Your task to perform on an android device: turn pop-ups on in chrome Image 0: 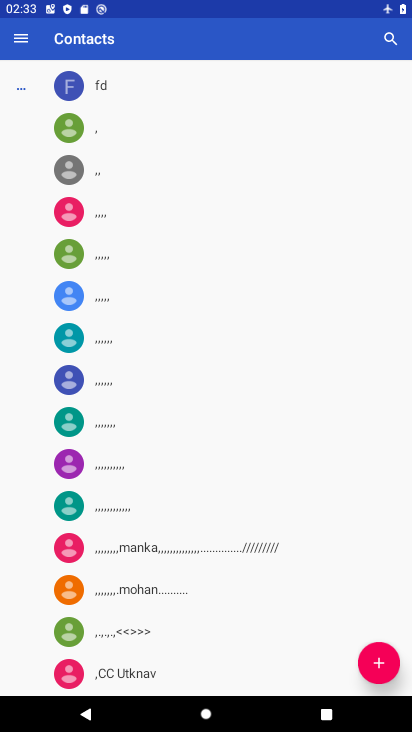
Step 0: drag from (233, 634) to (208, 95)
Your task to perform on an android device: turn pop-ups on in chrome Image 1: 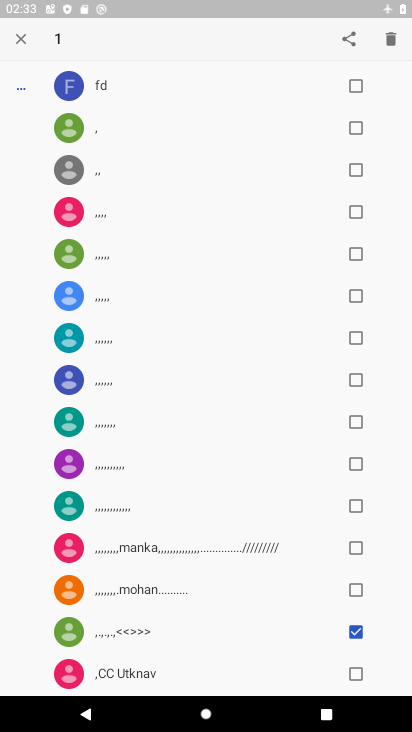
Step 1: press home button
Your task to perform on an android device: turn pop-ups on in chrome Image 2: 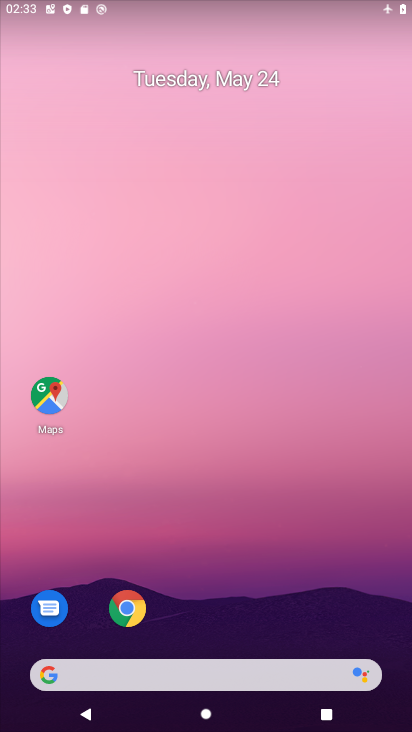
Step 2: drag from (264, 631) to (210, 231)
Your task to perform on an android device: turn pop-ups on in chrome Image 3: 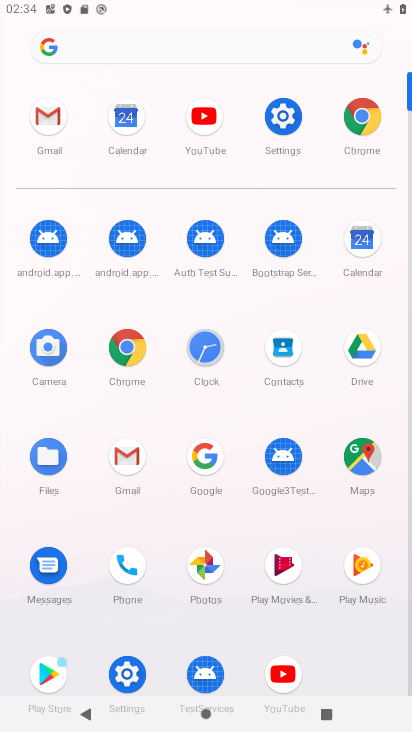
Step 3: click (354, 109)
Your task to perform on an android device: turn pop-ups on in chrome Image 4: 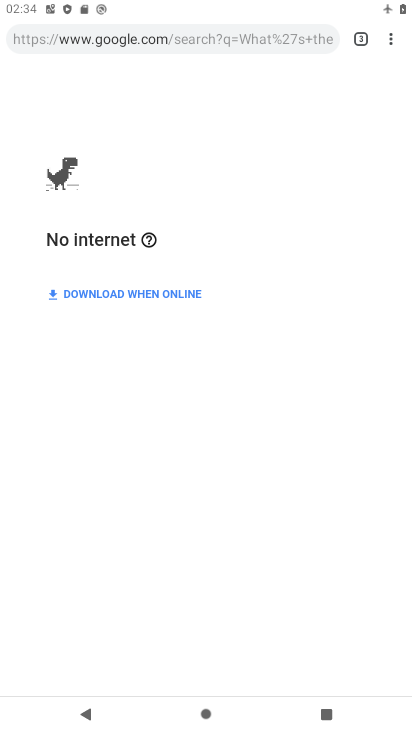
Step 4: click (388, 34)
Your task to perform on an android device: turn pop-ups on in chrome Image 5: 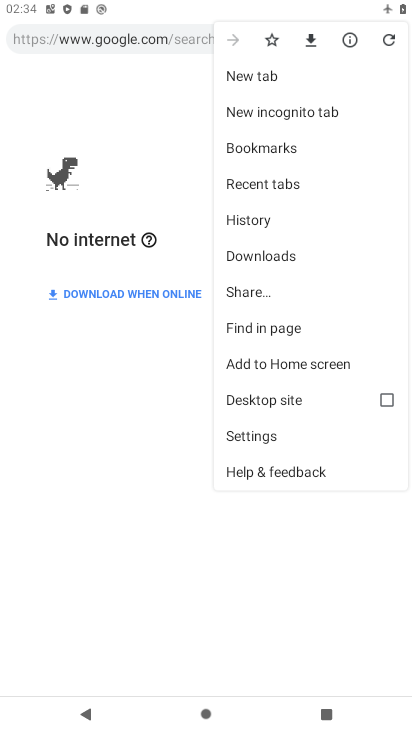
Step 5: click (296, 437)
Your task to perform on an android device: turn pop-ups on in chrome Image 6: 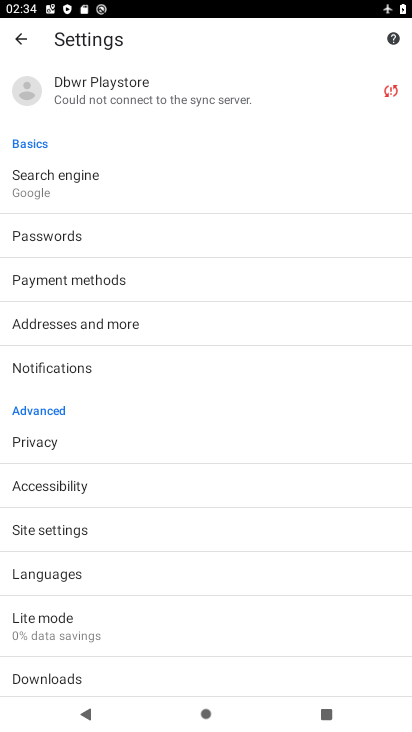
Step 6: click (148, 536)
Your task to perform on an android device: turn pop-ups on in chrome Image 7: 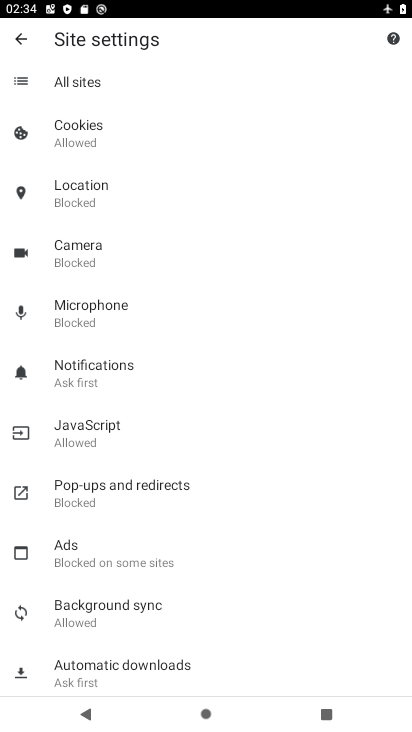
Step 7: click (145, 502)
Your task to perform on an android device: turn pop-ups on in chrome Image 8: 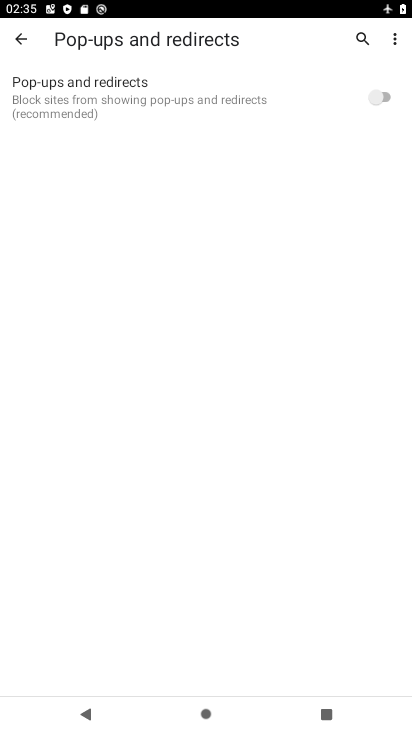
Step 8: click (386, 95)
Your task to perform on an android device: turn pop-ups on in chrome Image 9: 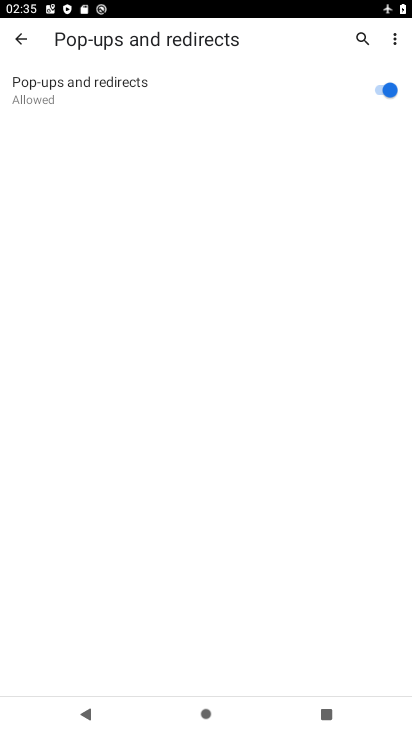
Step 9: task complete